Your task to perform on an android device: move an email to a new category in the gmail app Image 0: 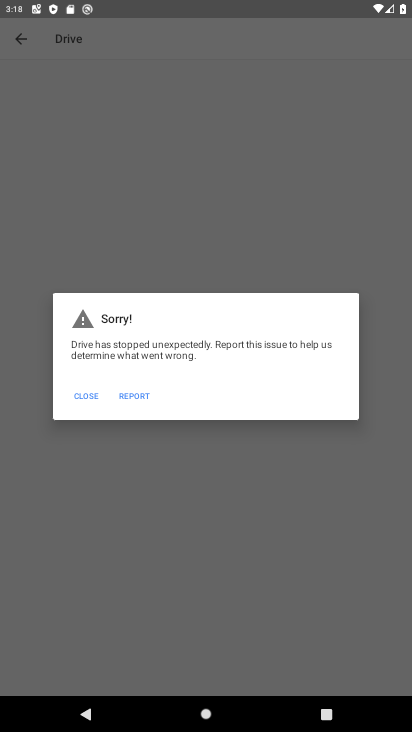
Step 0: drag from (373, 595) to (298, 251)
Your task to perform on an android device: move an email to a new category in the gmail app Image 1: 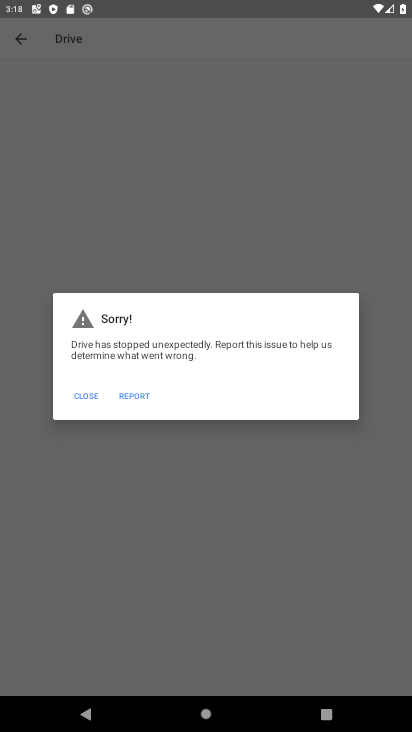
Step 1: press home button
Your task to perform on an android device: move an email to a new category in the gmail app Image 2: 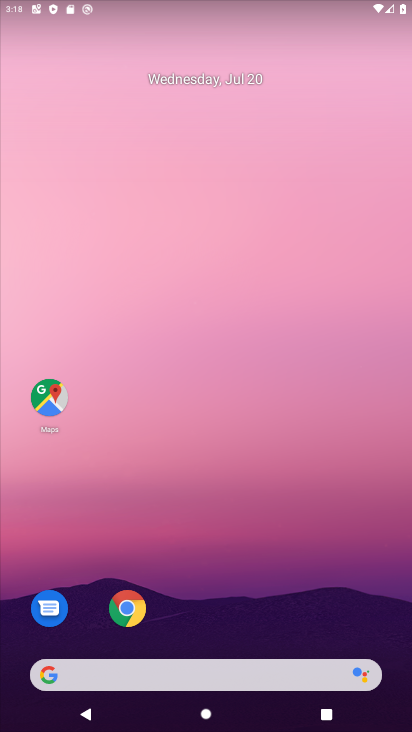
Step 2: drag from (394, 712) to (289, 94)
Your task to perform on an android device: move an email to a new category in the gmail app Image 3: 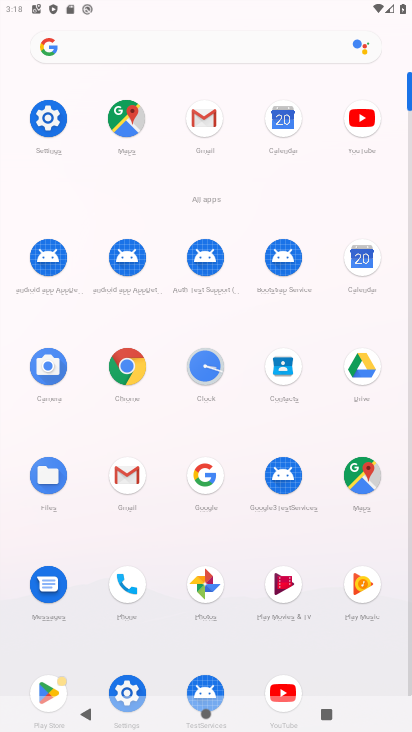
Step 3: click (126, 481)
Your task to perform on an android device: move an email to a new category in the gmail app Image 4: 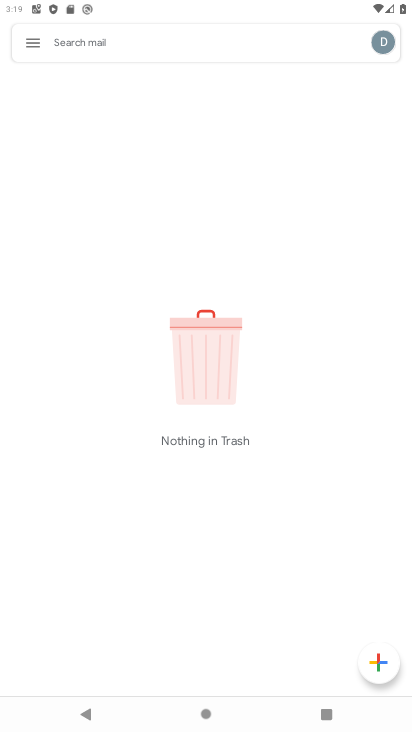
Step 4: task complete